Your task to perform on an android device: Open calendar and show me the first week of next month Image 0: 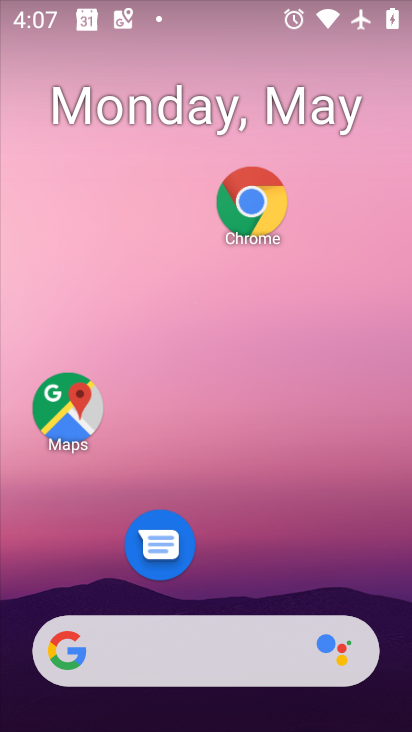
Step 0: drag from (222, 574) to (293, 120)
Your task to perform on an android device: Open calendar and show me the first week of next month Image 1: 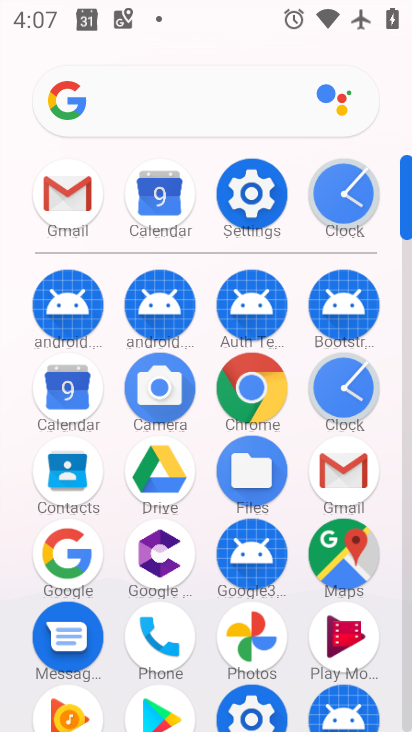
Step 1: click (81, 399)
Your task to perform on an android device: Open calendar and show me the first week of next month Image 2: 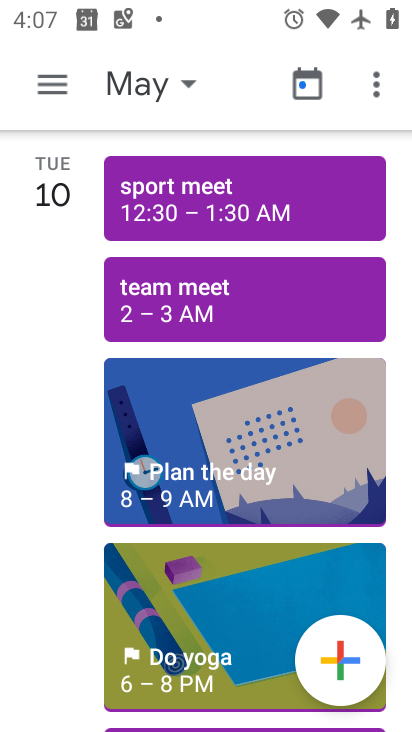
Step 2: click (189, 84)
Your task to perform on an android device: Open calendar and show me the first week of next month Image 3: 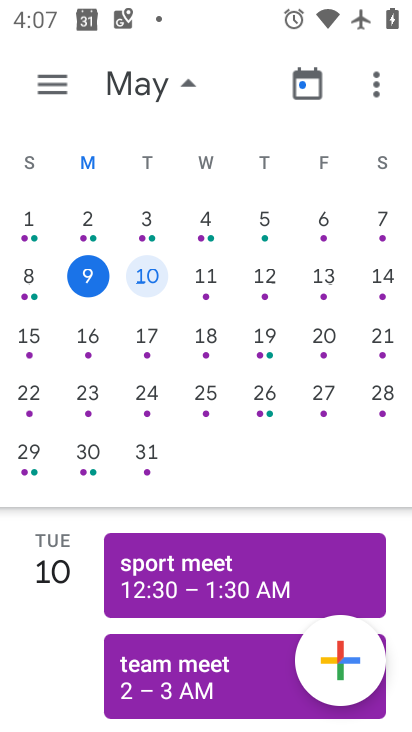
Step 3: drag from (345, 299) to (41, 314)
Your task to perform on an android device: Open calendar and show me the first week of next month Image 4: 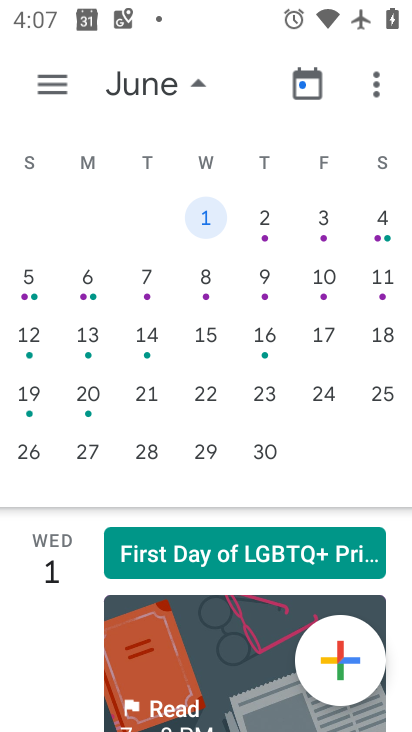
Step 4: click (198, 224)
Your task to perform on an android device: Open calendar and show me the first week of next month Image 5: 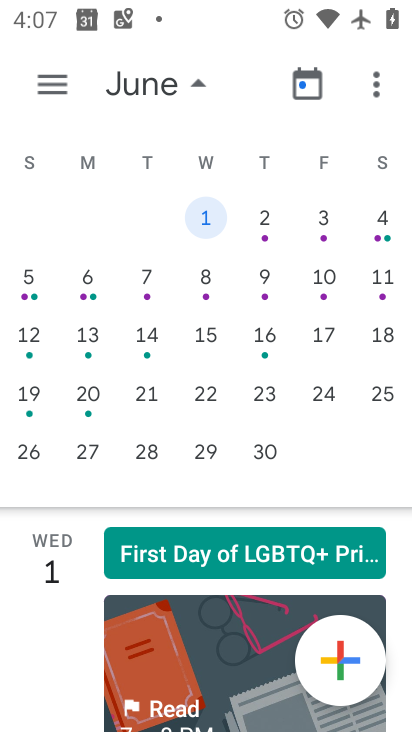
Step 5: click (257, 222)
Your task to perform on an android device: Open calendar and show me the first week of next month Image 6: 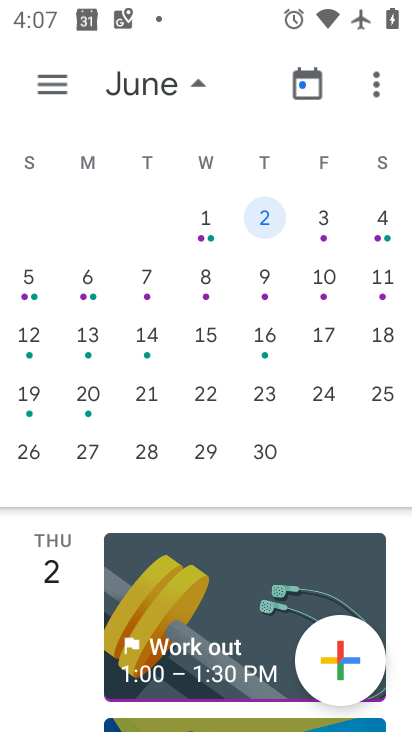
Step 6: click (322, 225)
Your task to perform on an android device: Open calendar and show me the first week of next month Image 7: 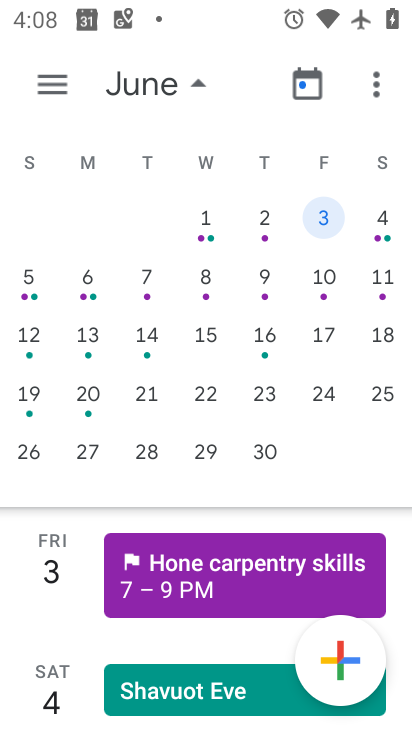
Step 7: click (376, 225)
Your task to perform on an android device: Open calendar and show me the first week of next month Image 8: 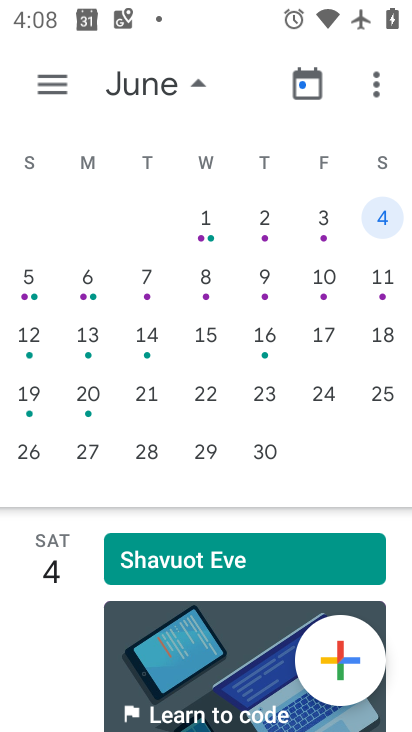
Step 8: click (321, 225)
Your task to perform on an android device: Open calendar and show me the first week of next month Image 9: 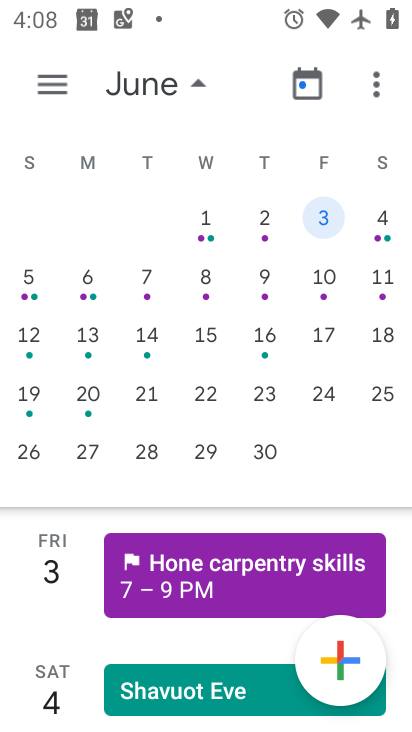
Step 9: click (362, 216)
Your task to perform on an android device: Open calendar and show me the first week of next month Image 10: 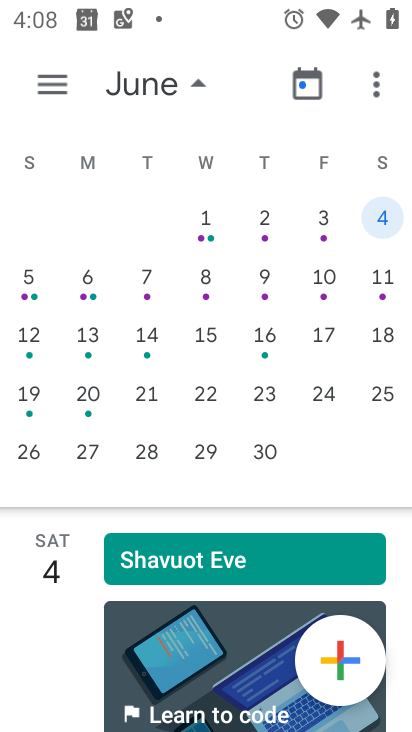
Step 10: task complete